Your task to perform on an android device: turn off sleep mode Image 0: 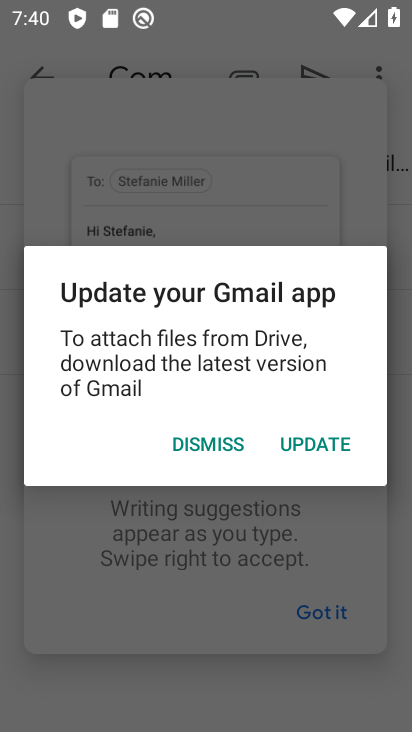
Step 0: press home button
Your task to perform on an android device: turn off sleep mode Image 1: 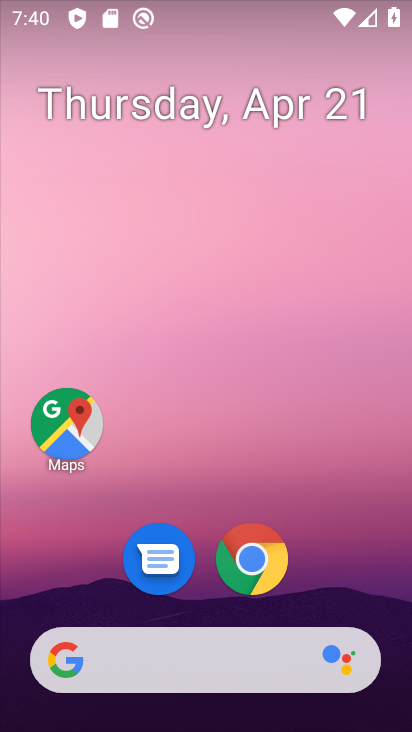
Step 1: drag from (236, 16) to (198, 605)
Your task to perform on an android device: turn off sleep mode Image 2: 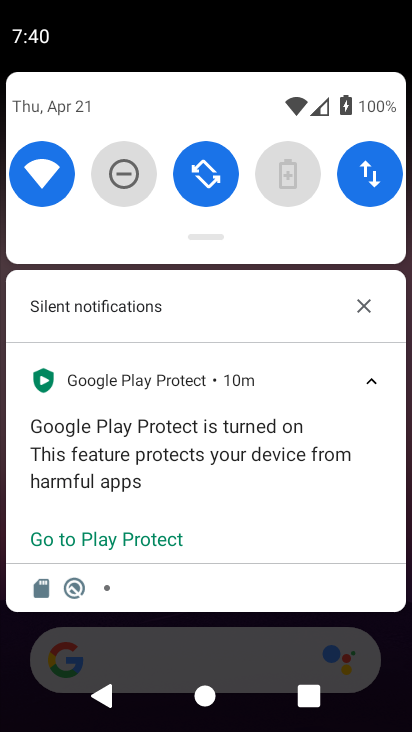
Step 2: click (401, 640)
Your task to perform on an android device: turn off sleep mode Image 3: 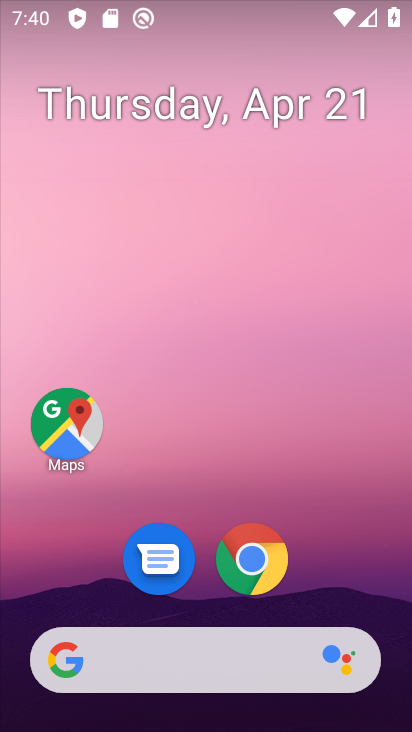
Step 3: drag from (202, 608) to (168, 25)
Your task to perform on an android device: turn off sleep mode Image 4: 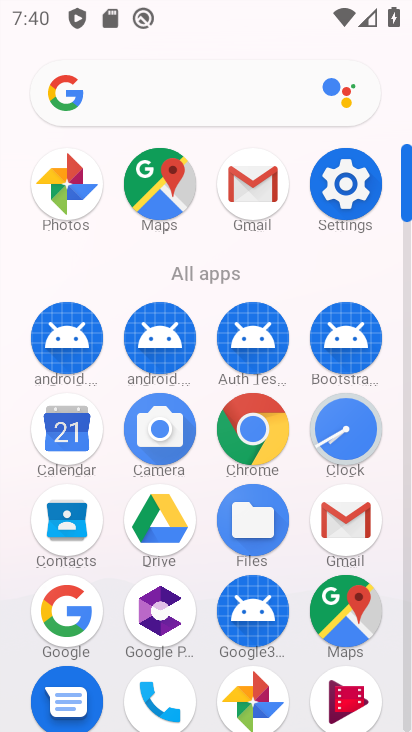
Step 4: click (334, 156)
Your task to perform on an android device: turn off sleep mode Image 5: 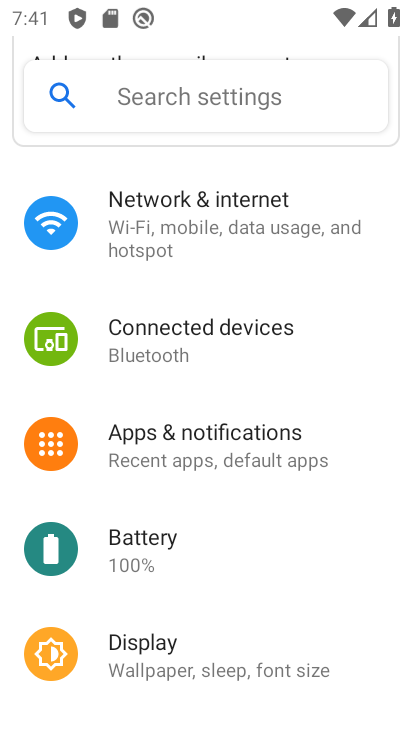
Step 5: task complete